Your task to perform on an android device: stop showing notifications on the lock screen Image 0: 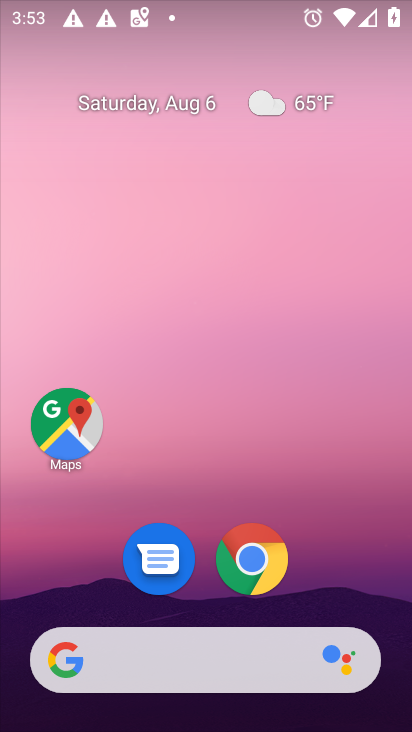
Step 0: drag from (317, 473) to (305, 37)
Your task to perform on an android device: stop showing notifications on the lock screen Image 1: 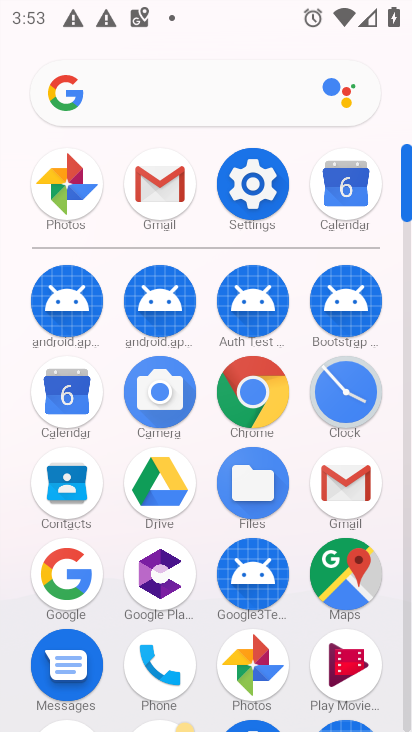
Step 1: click (248, 180)
Your task to perform on an android device: stop showing notifications on the lock screen Image 2: 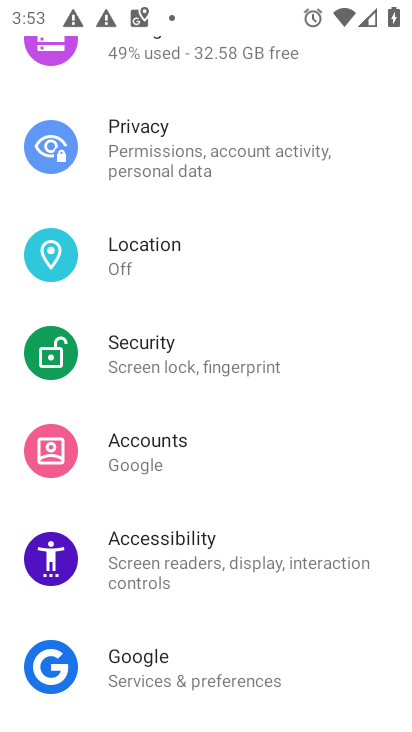
Step 2: drag from (239, 259) to (231, 654)
Your task to perform on an android device: stop showing notifications on the lock screen Image 3: 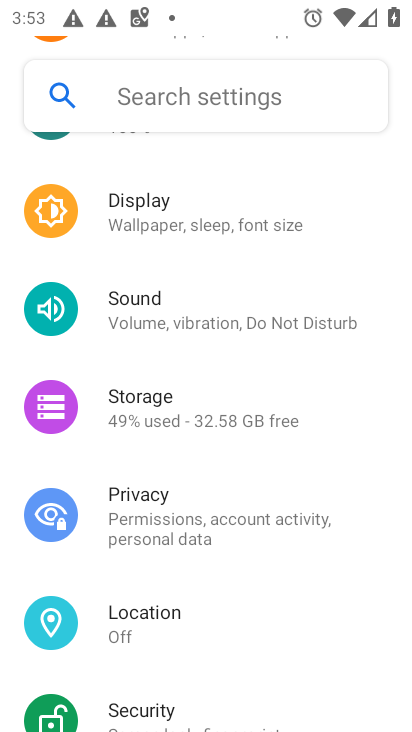
Step 3: drag from (211, 267) to (239, 597)
Your task to perform on an android device: stop showing notifications on the lock screen Image 4: 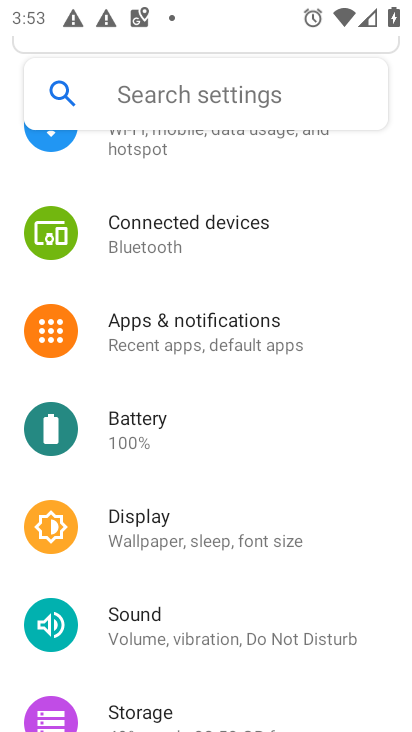
Step 4: click (225, 338)
Your task to perform on an android device: stop showing notifications on the lock screen Image 5: 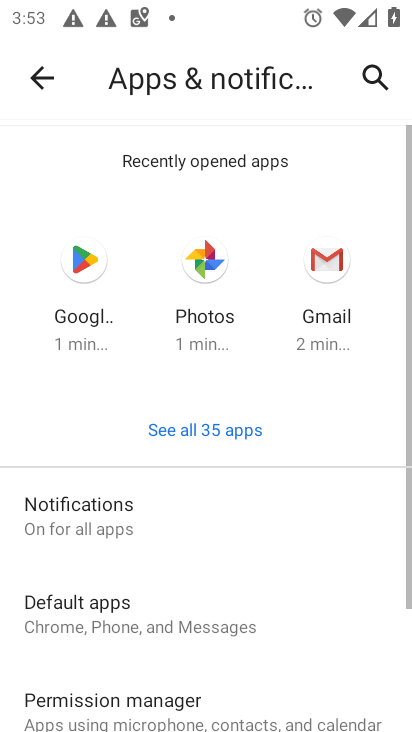
Step 5: click (97, 510)
Your task to perform on an android device: stop showing notifications on the lock screen Image 6: 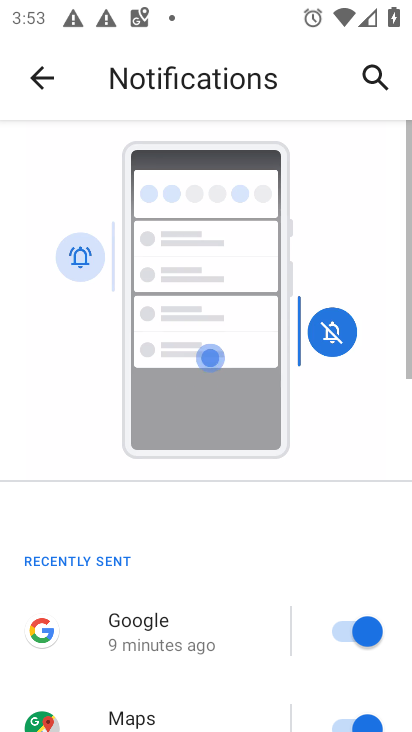
Step 6: drag from (238, 610) to (281, 1)
Your task to perform on an android device: stop showing notifications on the lock screen Image 7: 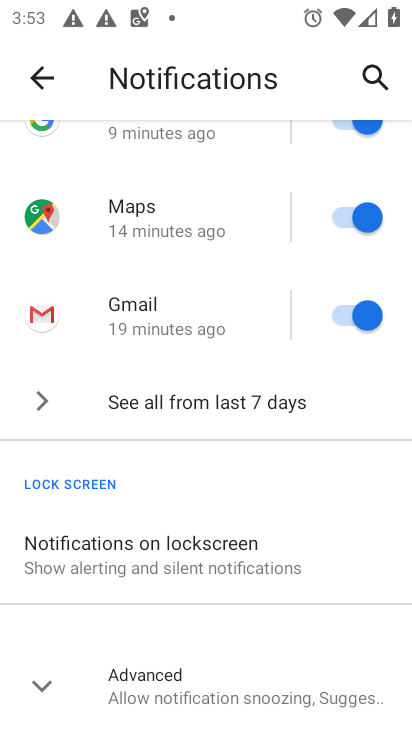
Step 7: click (185, 552)
Your task to perform on an android device: stop showing notifications on the lock screen Image 8: 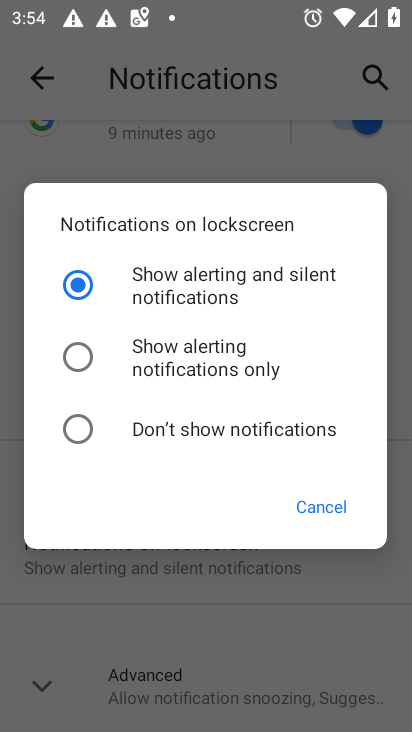
Step 8: click (74, 430)
Your task to perform on an android device: stop showing notifications on the lock screen Image 9: 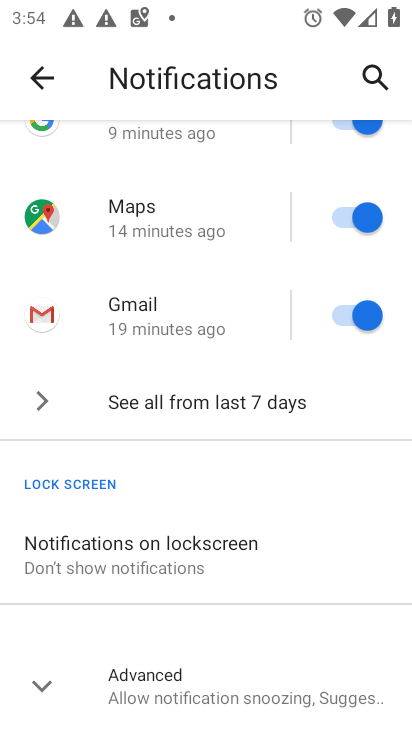
Step 9: task complete